Your task to perform on an android device: Open the calendar and show me this week's events? Image 0: 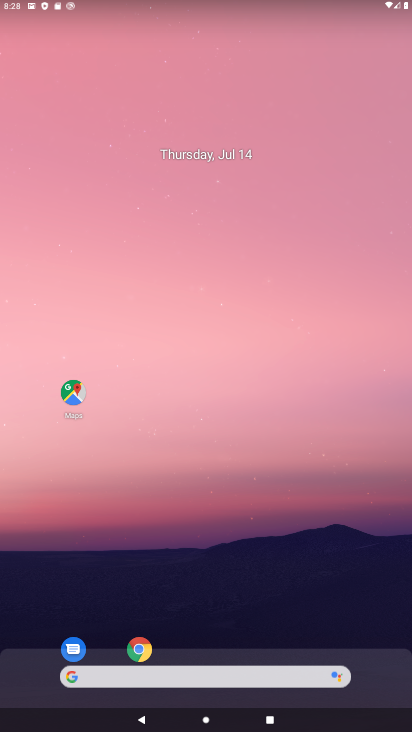
Step 0: drag from (263, 652) to (369, 18)
Your task to perform on an android device: Open the calendar and show me this week's events? Image 1: 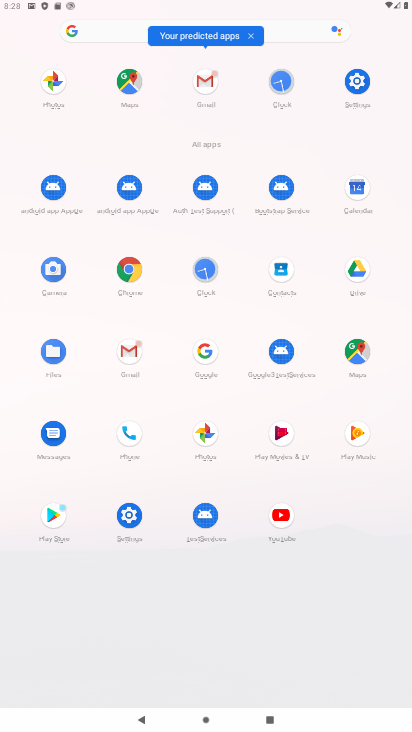
Step 1: click (355, 198)
Your task to perform on an android device: Open the calendar and show me this week's events? Image 2: 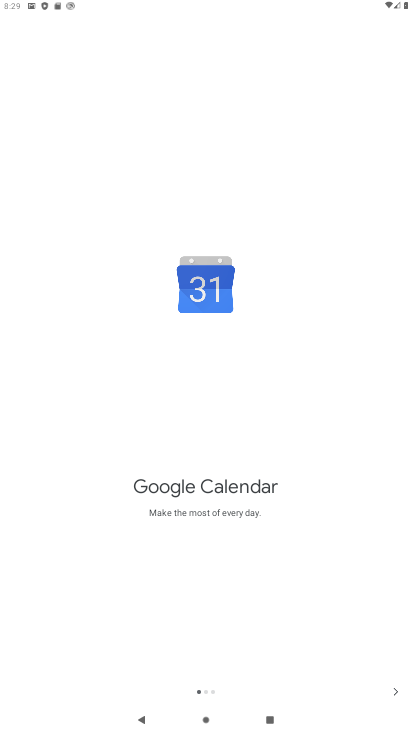
Step 2: click (396, 687)
Your task to perform on an android device: Open the calendar and show me this week's events? Image 3: 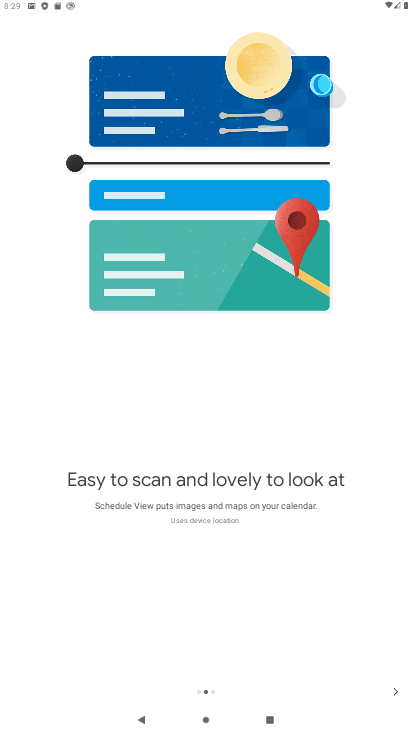
Step 3: click (383, 689)
Your task to perform on an android device: Open the calendar and show me this week's events? Image 4: 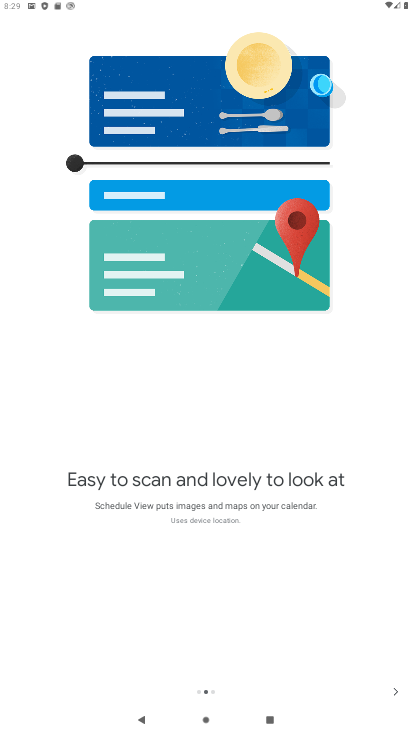
Step 4: click (389, 695)
Your task to perform on an android device: Open the calendar and show me this week's events? Image 5: 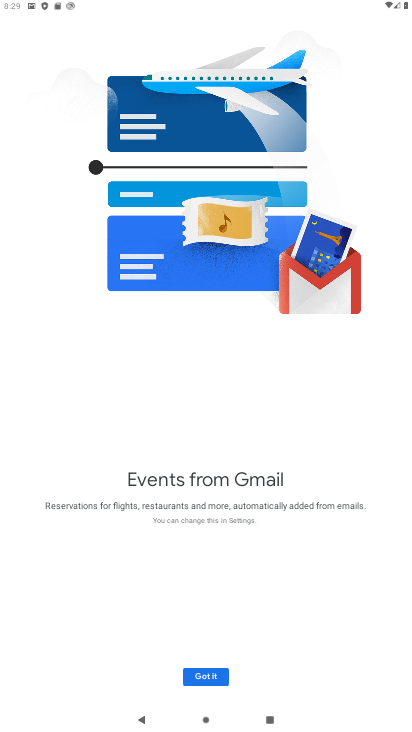
Step 5: click (209, 680)
Your task to perform on an android device: Open the calendar and show me this week's events? Image 6: 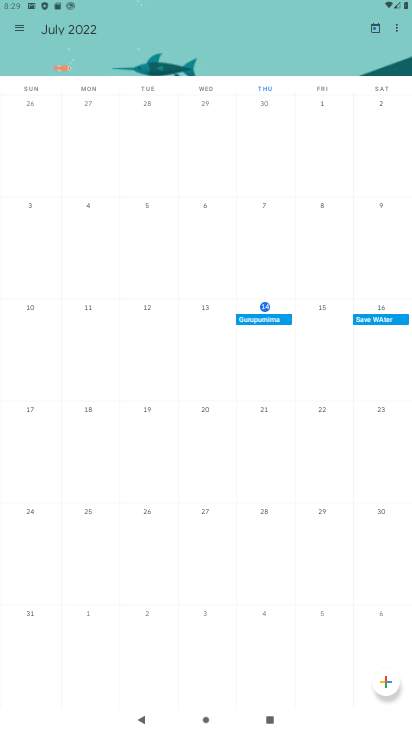
Step 6: task complete